Your task to perform on an android device: toggle notification dots Image 0: 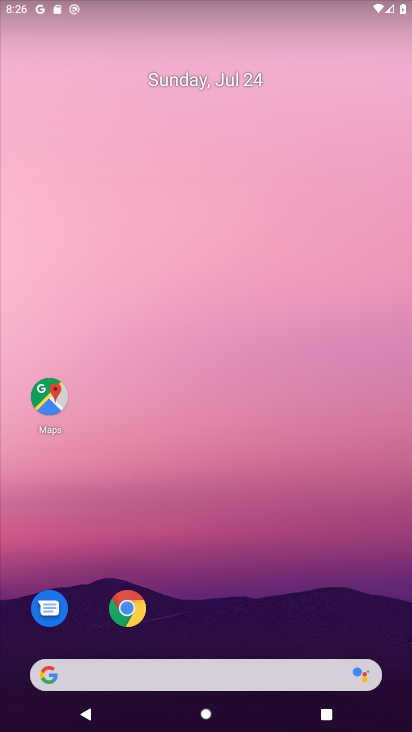
Step 0: drag from (207, 593) to (274, 60)
Your task to perform on an android device: toggle notification dots Image 1: 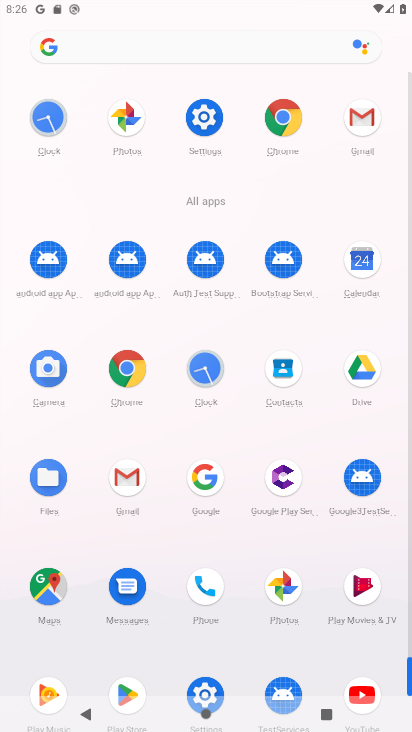
Step 1: click (199, 118)
Your task to perform on an android device: toggle notification dots Image 2: 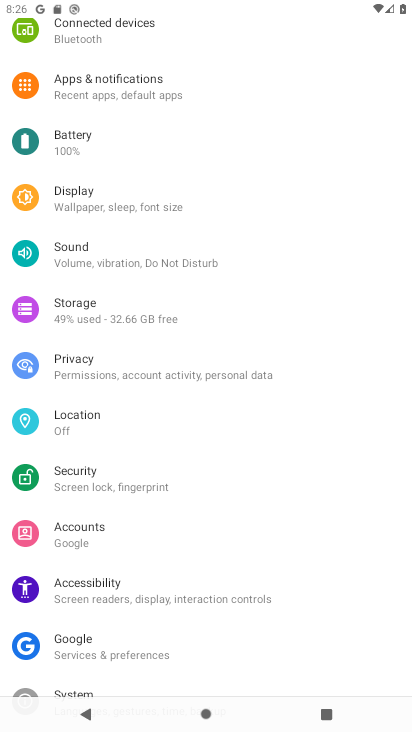
Step 2: click (140, 95)
Your task to perform on an android device: toggle notification dots Image 3: 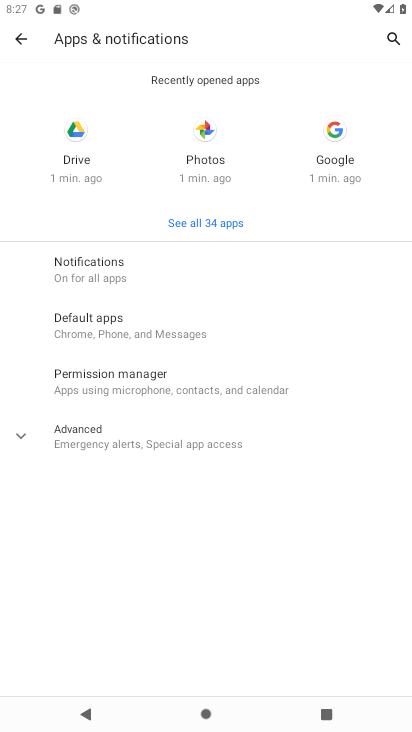
Step 3: click (161, 266)
Your task to perform on an android device: toggle notification dots Image 4: 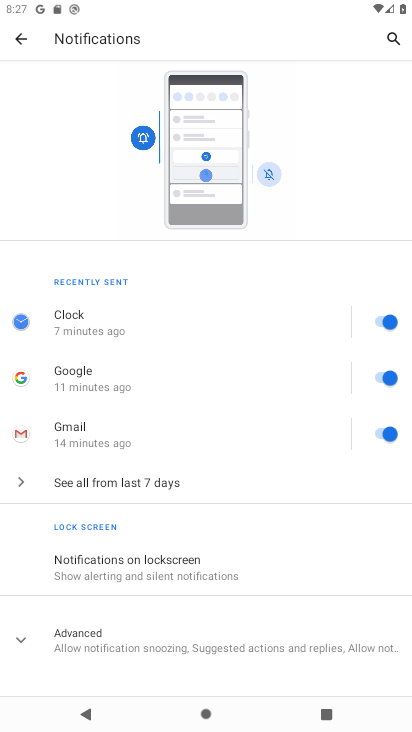
Step 4: click (63, 651)
Your task to perform on an android device: toggle notification dots Image 5: 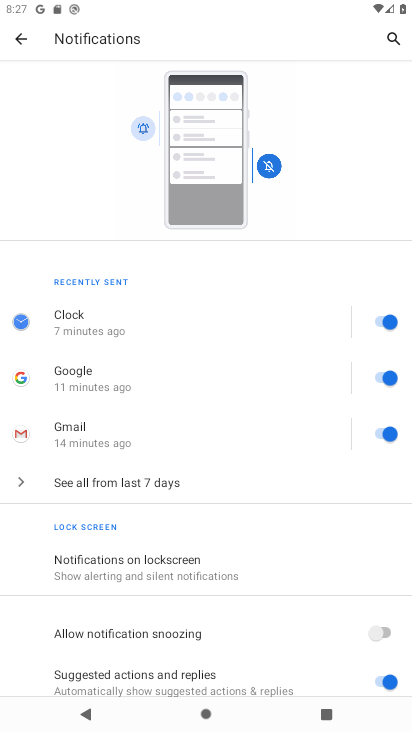
Step 5: drag from (63, 651) to (253, 207)
Your task to perform on an android device: toggle notification dots Image 6: 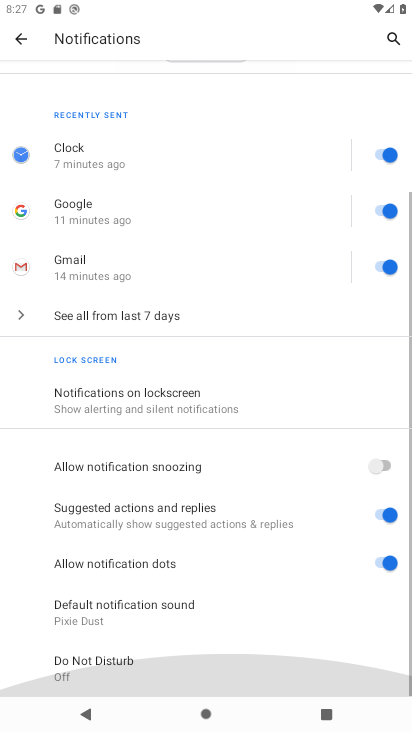
Step 6: drag from (253, 207) to (391, 614)
Your task to perform on an android device: toggle notification dots Image 7: 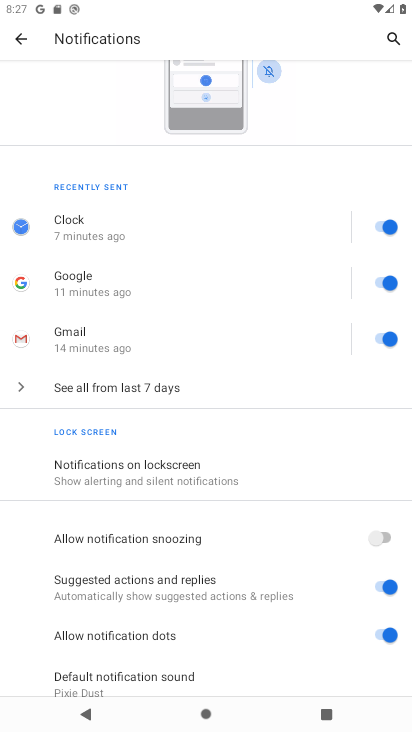
Step 7: click (391, 614)
Your task to perform on an android device: toggle notification dots Image 8: 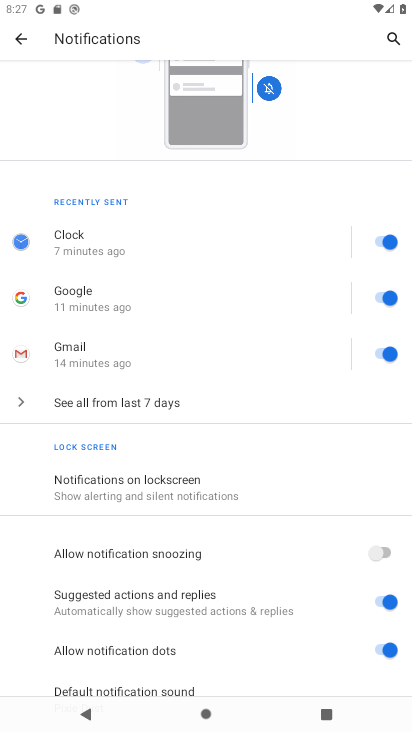
Step 8: click (389, 654)
Your task to perform on an android device: toggle notification dots Image 9: 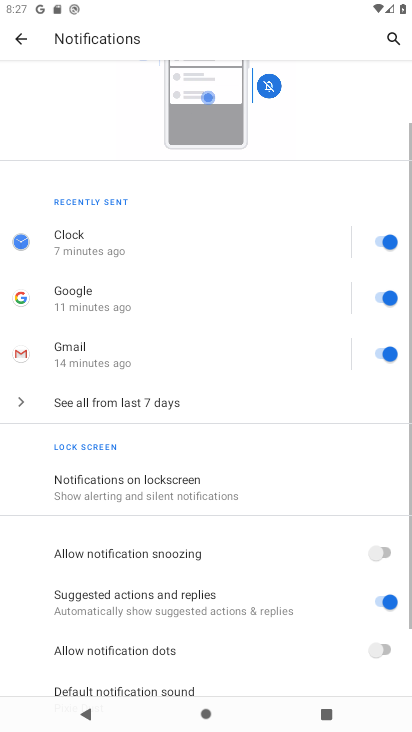
Step 9: click (389, 654)
Your task to perform on an android device: toggle notification dots Image 10: 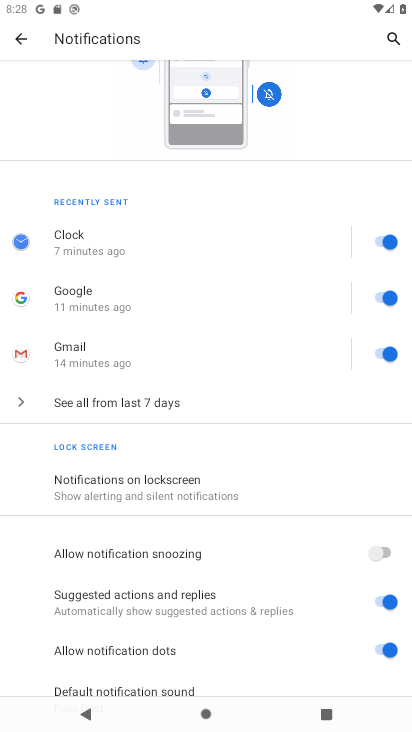
Step 10: task complete